Your task to perform on an android device: change the clock display to digital Image 0: 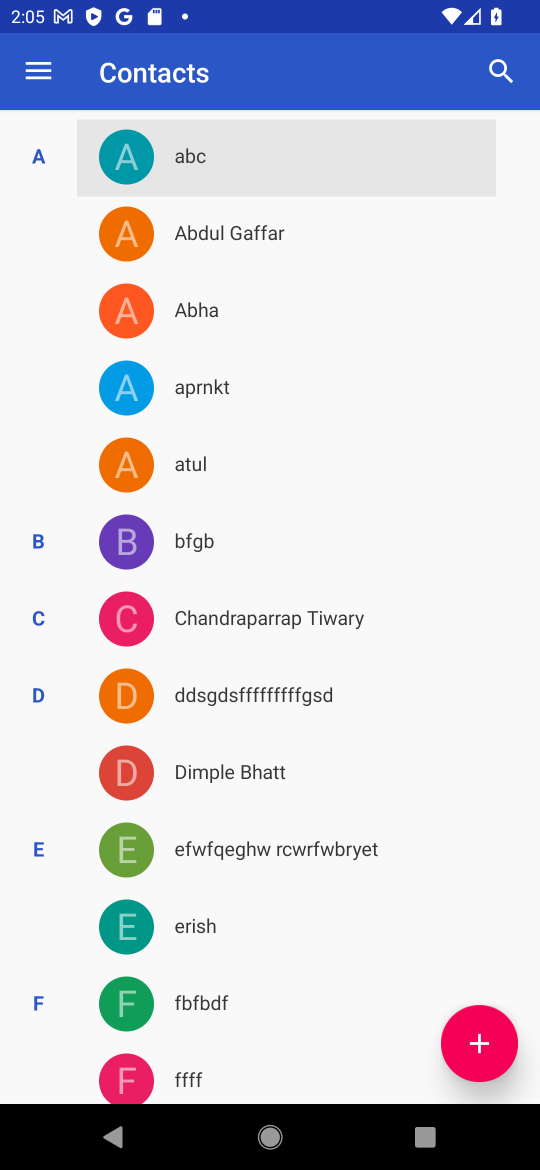
Step 0: press home button
Your task to perform on an android device: change the clock display to digital Image 1: 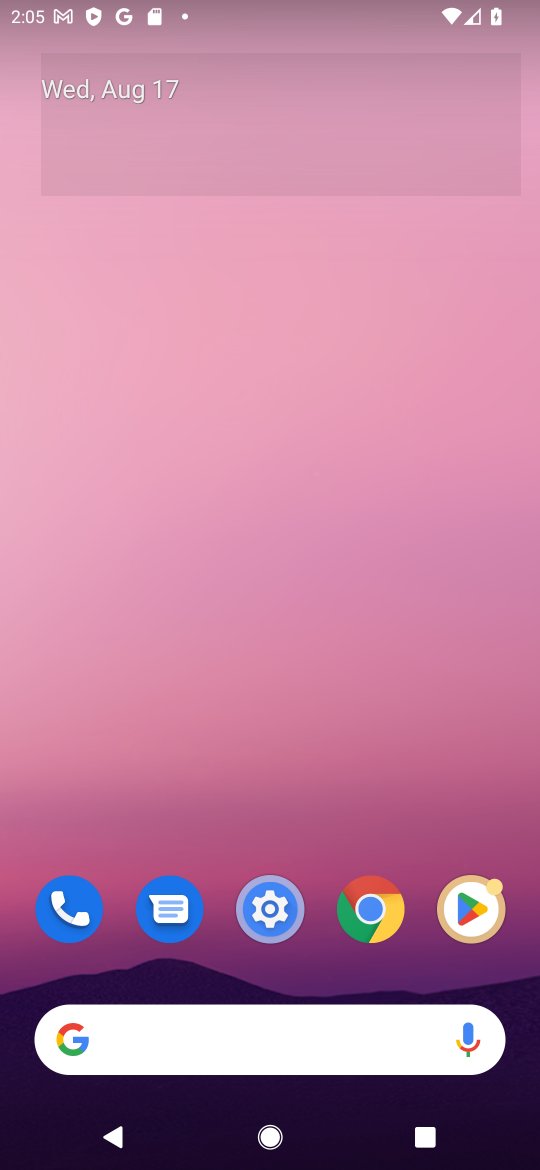
Step 1: drag from (319, 703) to (391, 294)
Your task to perform on an android device: change the clock display to digital Image 2: 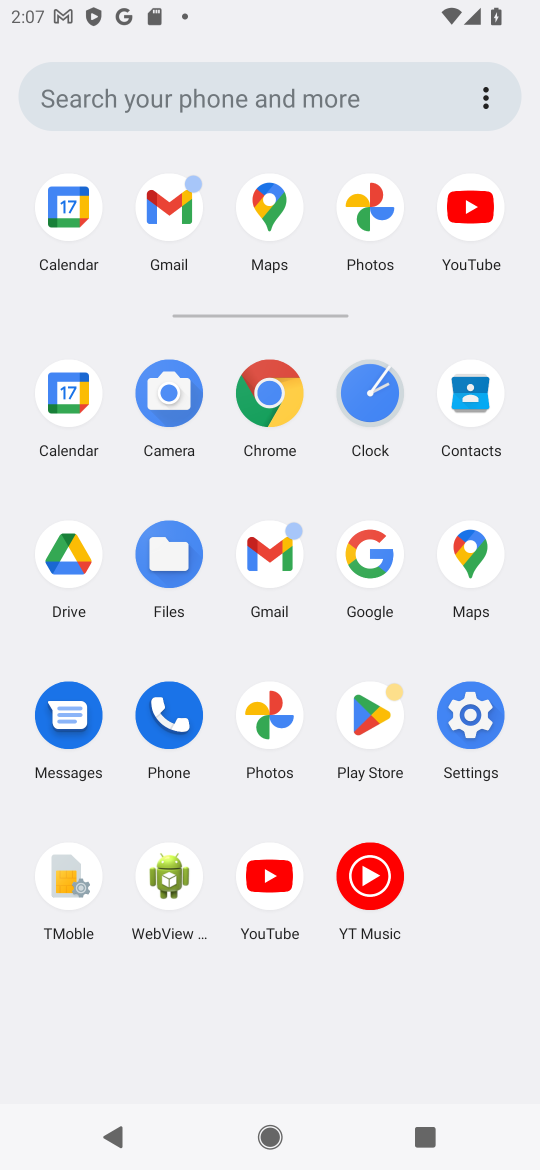
Step 2: click (480, 723)
Your task to perform on an android device: change the clock display to digital Image 3: 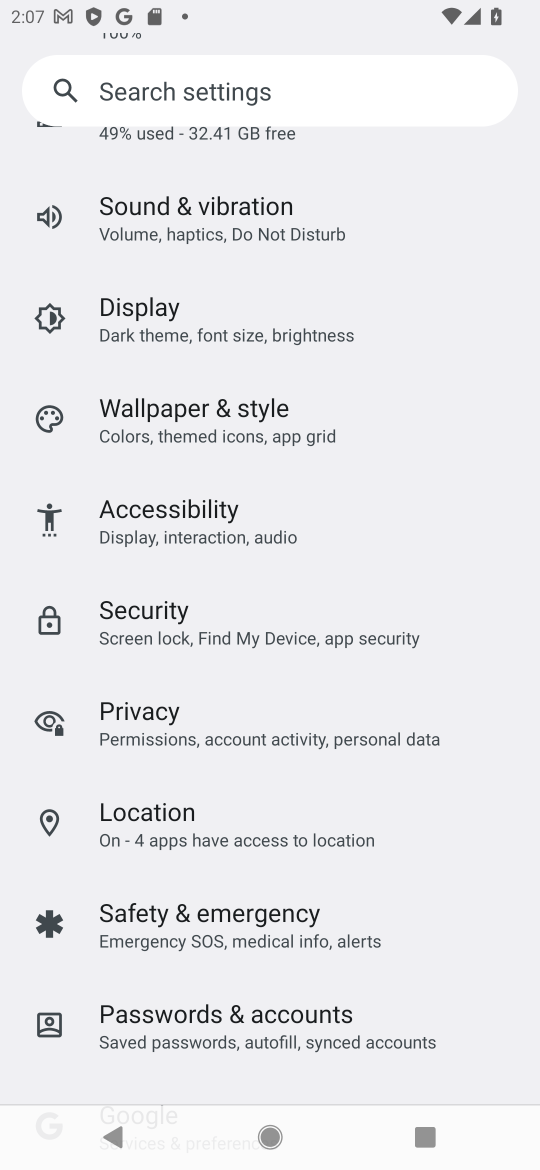
Step 3: task complete